Your task to perform on an android device: open a bookmark in the chrome app Image 0: 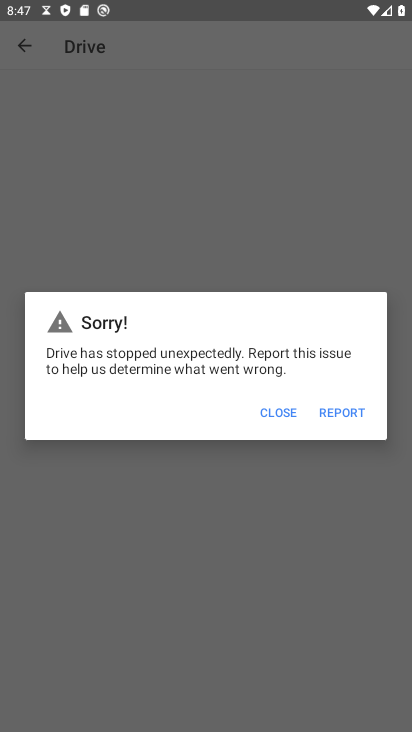
Step 0: press home button
Your task to perform on an android device: open a bookmark in the chrome app Image 1: 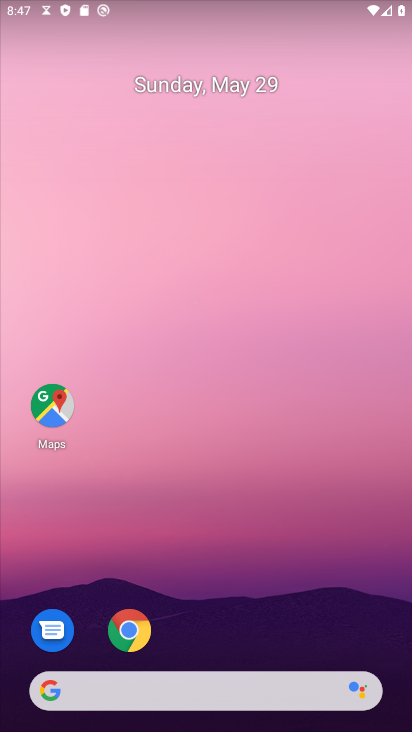
Step 1: click (133, 623)
Your task to perform on an android device: open a bookmark in the chrome app Image 2: 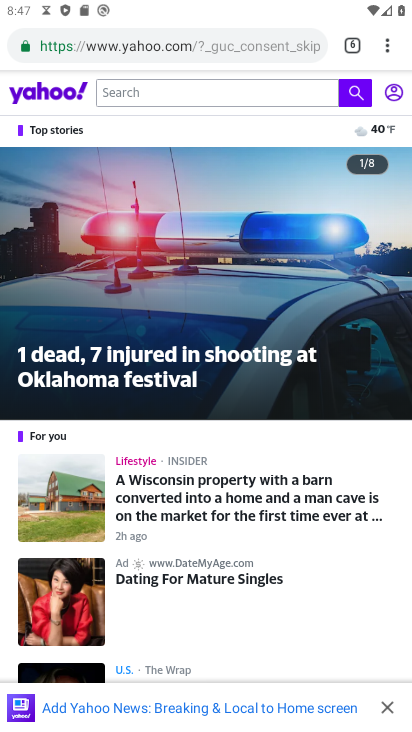
Step 2: click (386, 44)
Your task to perform on an android device: open a bookmark in the chrome app Image 3: 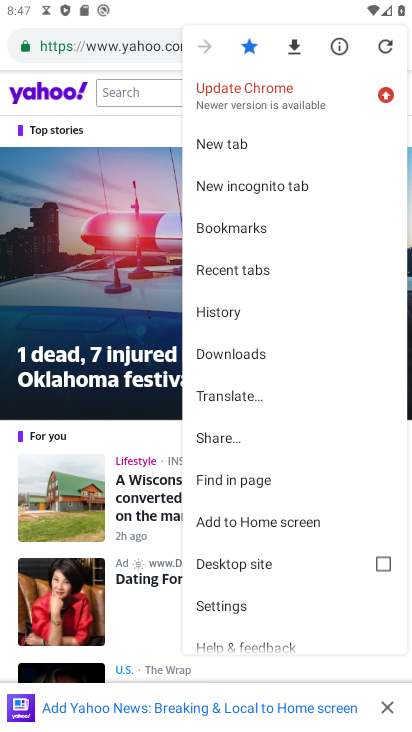
Step 3: click (225, 232)
Your task to perform on an android device: open a bookmark in the chrome app Image 4: 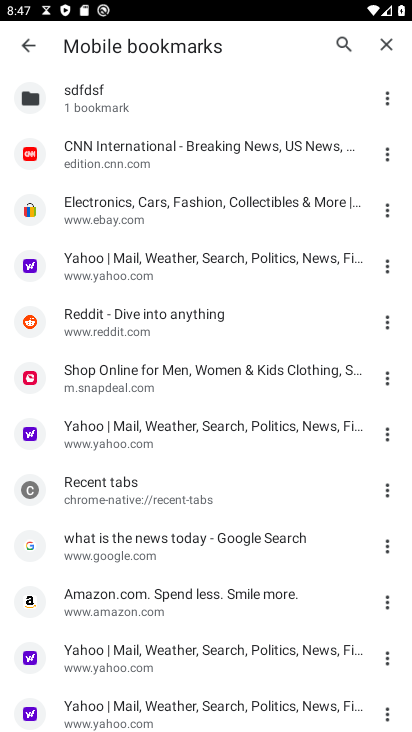
Step 4: click (188, 154)
Your task to perform on an android device: open a bookmark in the chrome app Image 5: 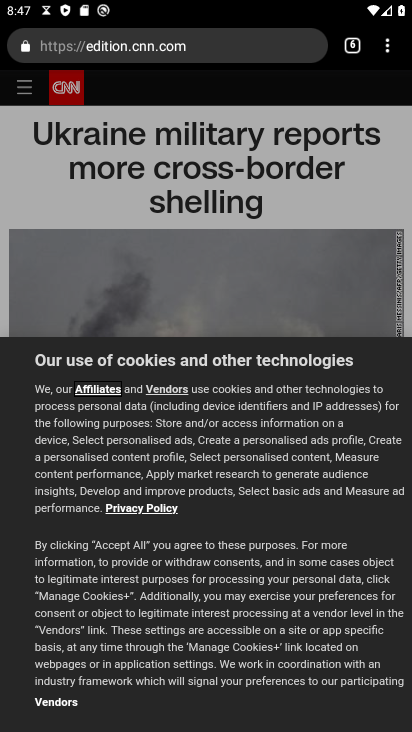
Step 5: task complete